Your task to perform on an android device: Go to Google Image 0: 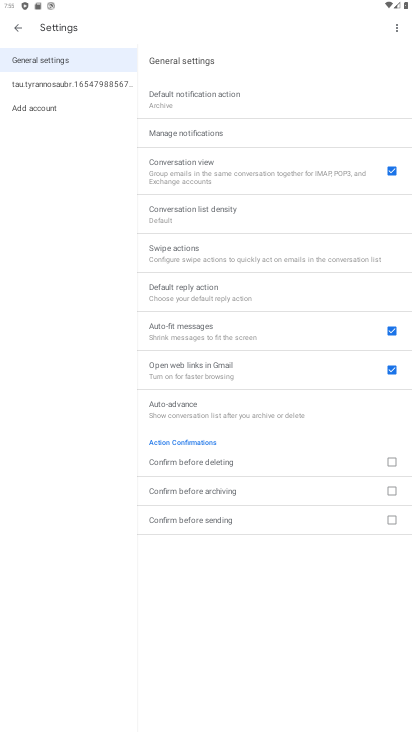
Step 0: press home button
Your task to perform on an android device: Go to Google Image 1: 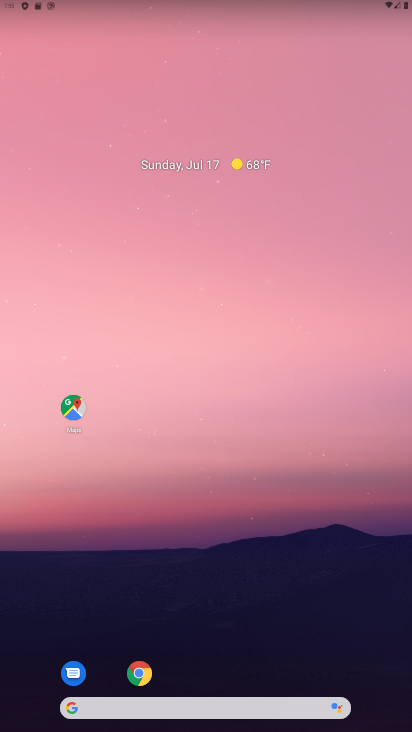
Step 1: drag from (288, 542) to (212, 3)
Your task to perform on an android device: Go to Google Image 2: 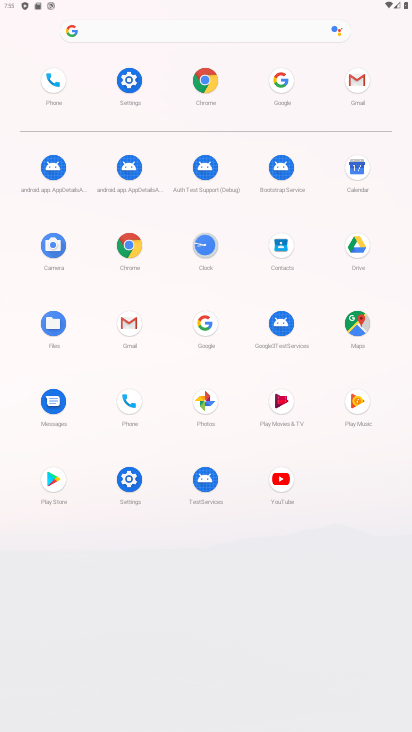
Step 2: click (207, 321)
Your task to perform on an android device: Go to Google Image 3: 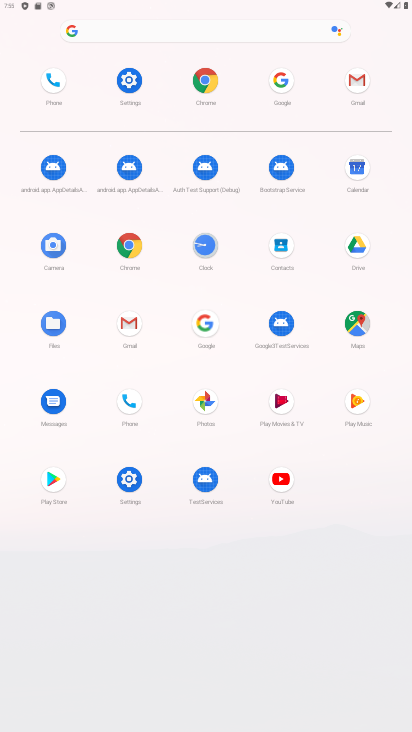
Step 3: click (206, 319)
Your task to perform on an android device: Go to Google Image 4: 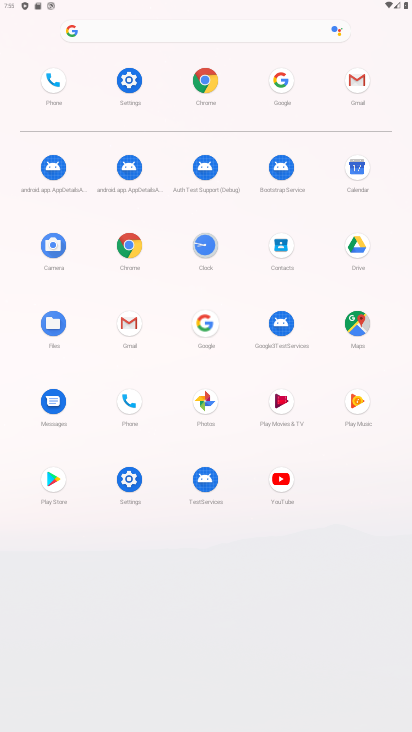
Step 4: click (206, 319)
Your task to perform on an android device: Go to Google Image 5: 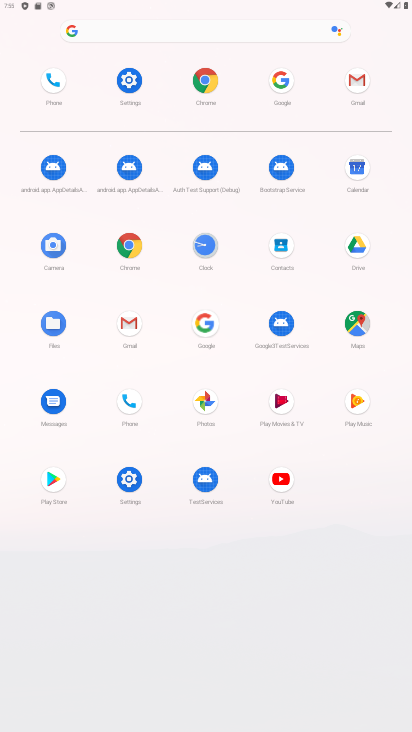
Step 5: click (206, 329)
Your task to perform on an android device: Go to Google Image 6: 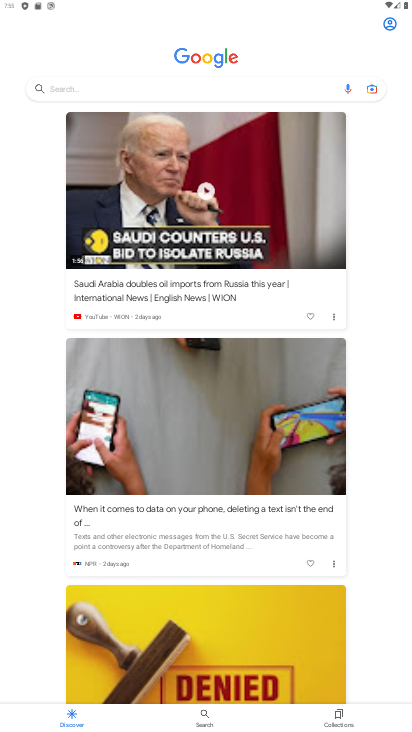
Step 6: task complete